Your task to perform on an android device: Open the Play Movies app and select the watchlist tab. Image 0: 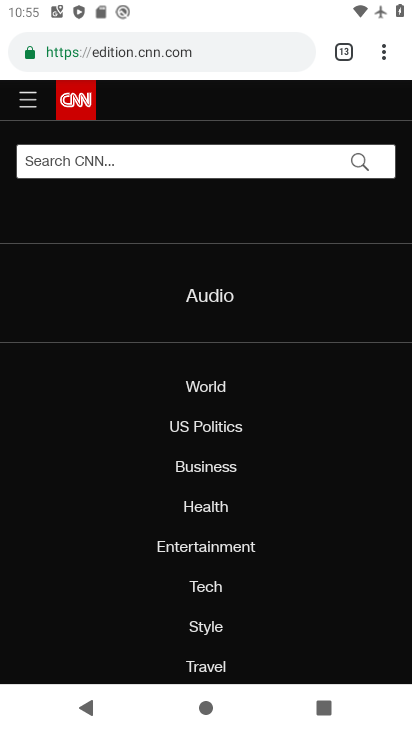
Step 0: press home button
Your task to perform on an android device: Open the Play Movies app and select the watchlist tab. Image 1: 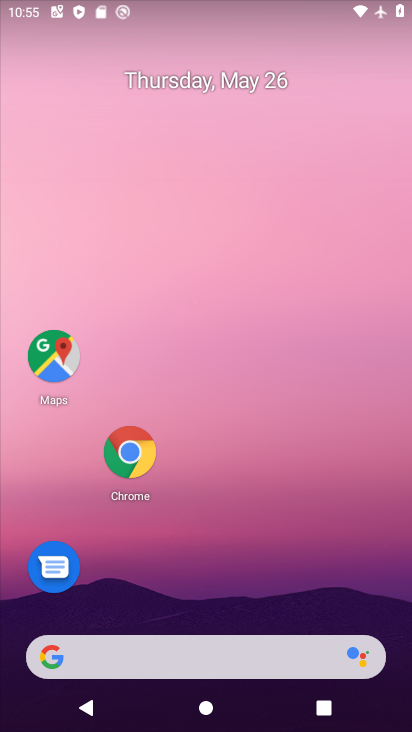
Step 1: drag from (205, 654) to (330, 144)
Your task to perform on an android device: Open the Play Movies app and select the watchlist tab. Image 2: 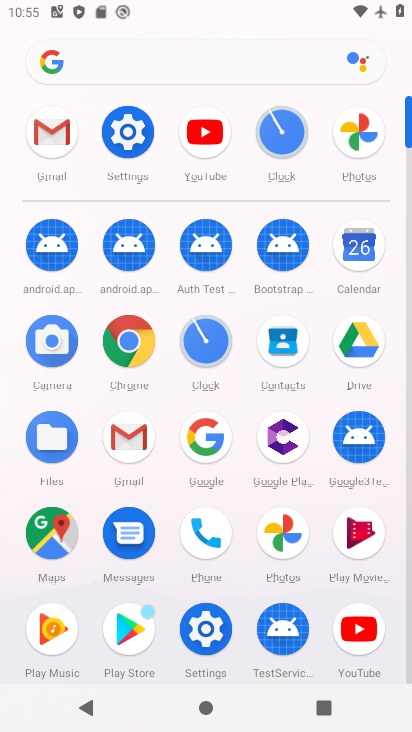
Step 2: click (357, 535)
Your task to perform on an android device: Open the Play Movies app and select the watchlist tab. Image 3: 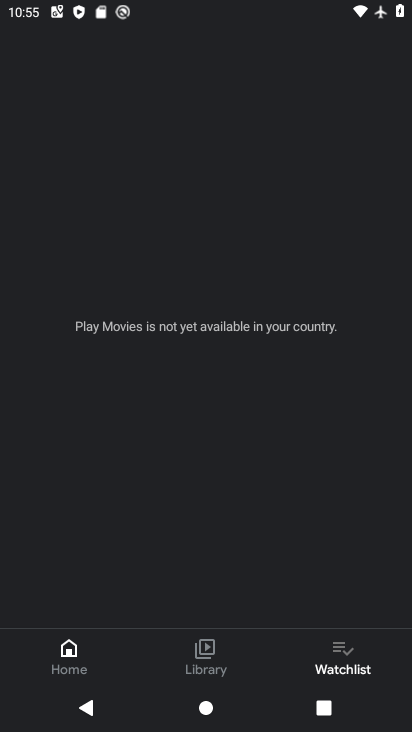
Step 3: click (334, 662)
Your task to perform on an android device: Open the Play Movies app and select the watchlist tab. Image 4: 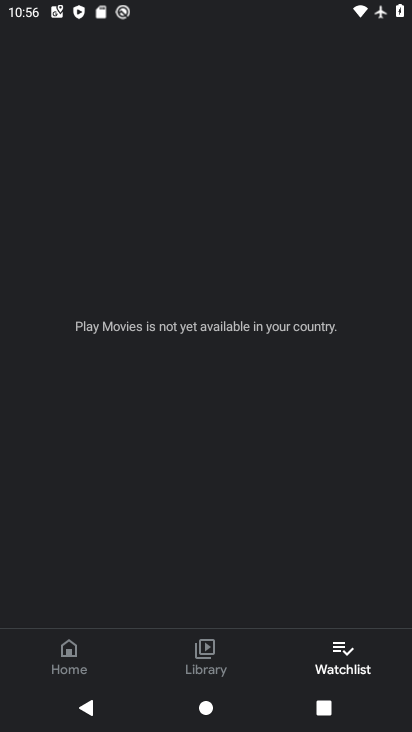
Step 4: task complete